Your task to perform on an android device: turn off location Image 0: 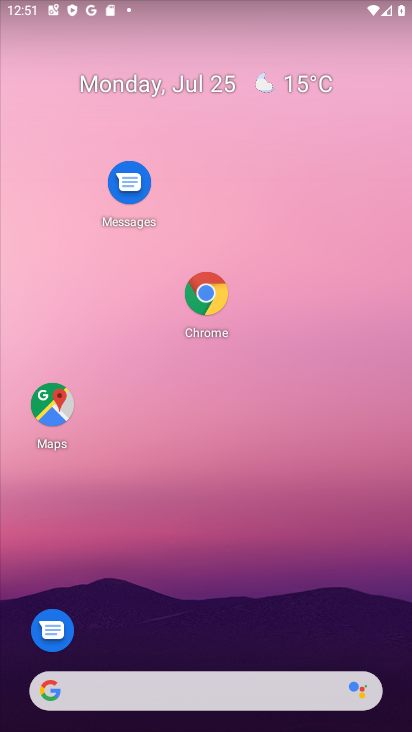
Step 0: press home button
Your task to perform on an android device: turn off location Image 1: 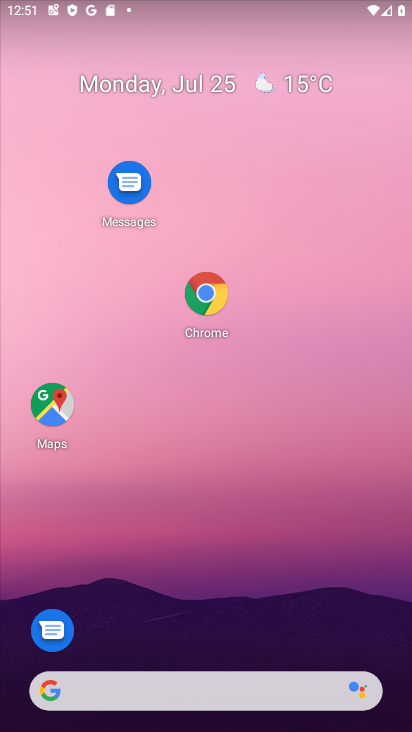
Step 1: drag from (238, 556) to (317, 178)
Your task to perform on an android device: turn off location Image 2: 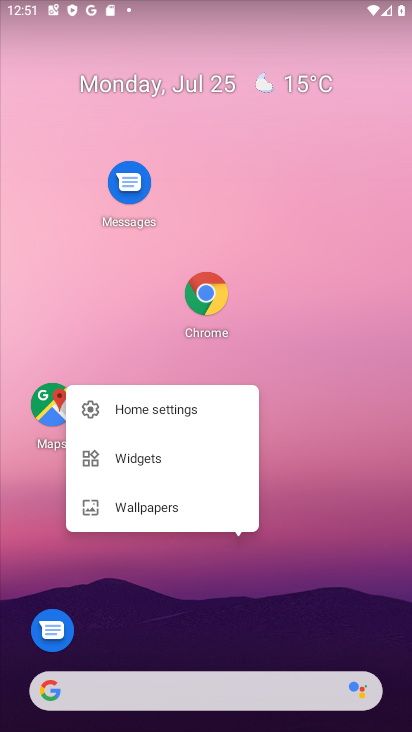
Step 2: click (307, 553)
Your task to perform on an android device: turn off location Image 3: 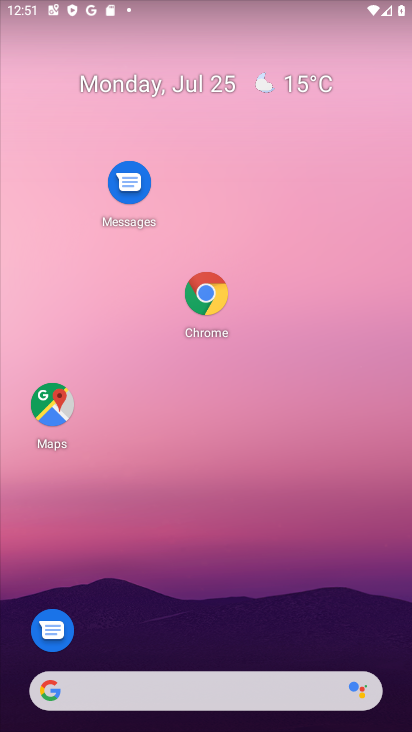
Step 3: drag from (302, 601) to (328, 60)
Your task to perform on an android device: turn off location Image 4: 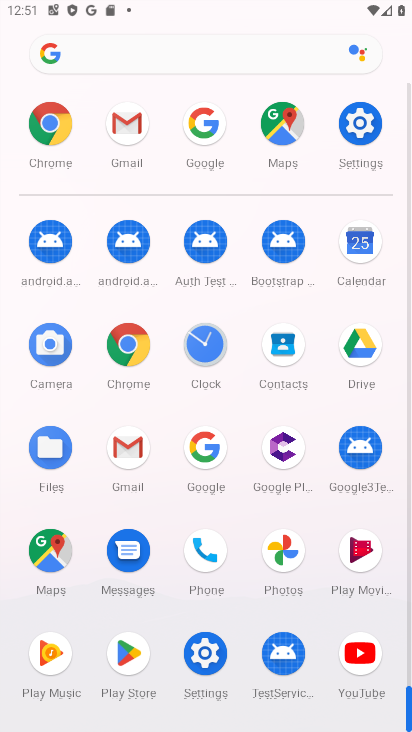
Step 4: click (277, 138)
Your task to perform on an android device: turn off location Image 5: 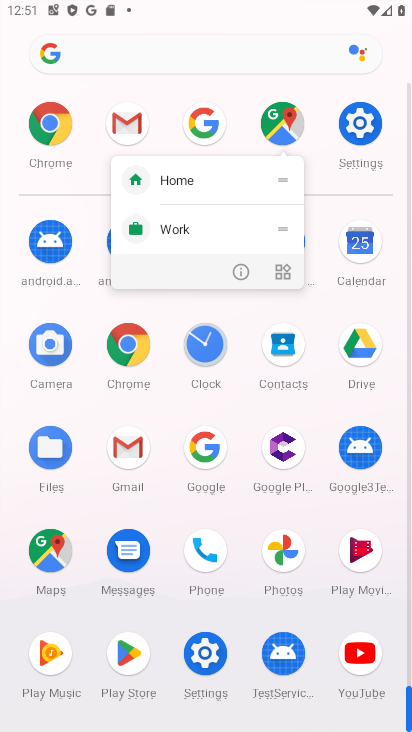
Step 5: click (285, 126)
Your task to perform on an android device: turn off location Image 6: 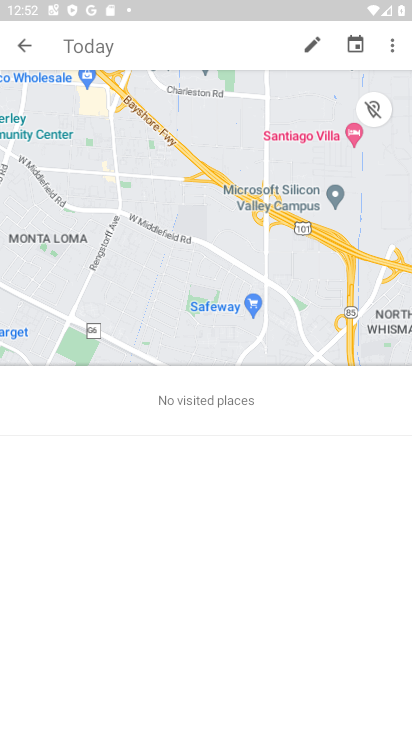
Step 6: click (22, 44)
Your task to perform on an android device: turn off location Image 7: 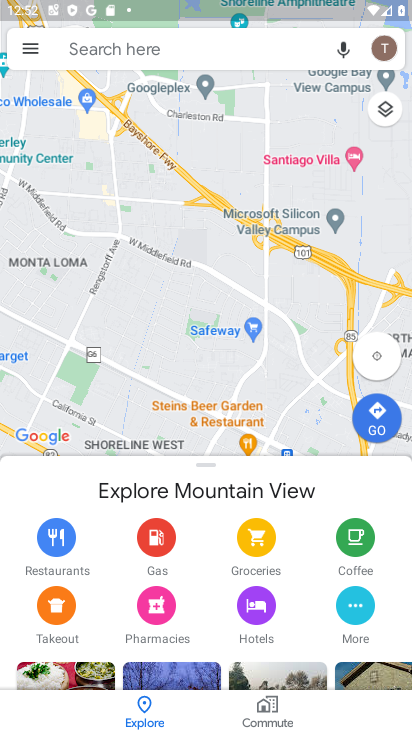
Step 7: click (22, 44)
Your task to perform on an android device: turn off location Image 8: 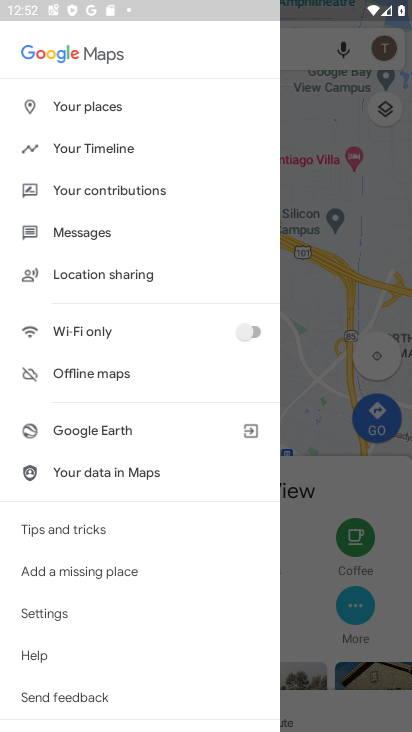
Step 8: drag from (158, 175) to (144, 504)
Your task to perform on an android device: turn off location Image 9: 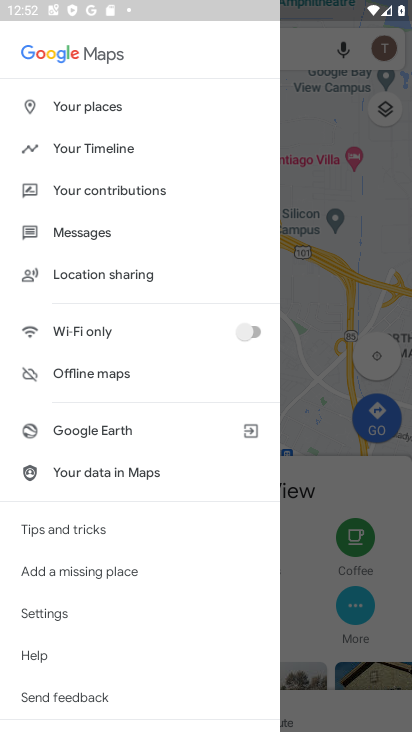
Step 9: click (85, 149)
Your task to perform on an android device: turn off location Image 10: 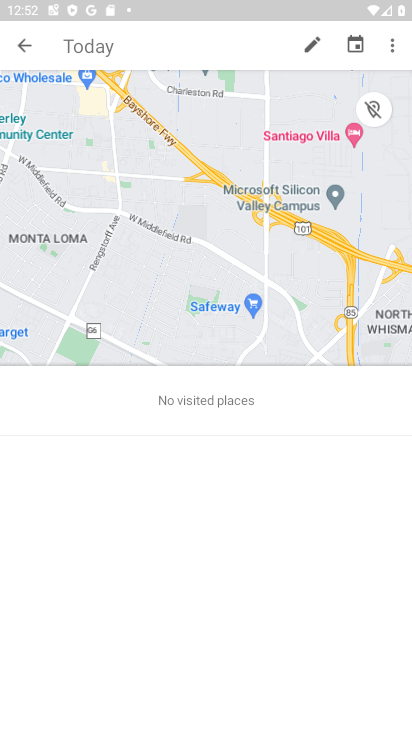
Step 10: click (396, 43)
Your task to perform on an android device: turn off location Image 11: 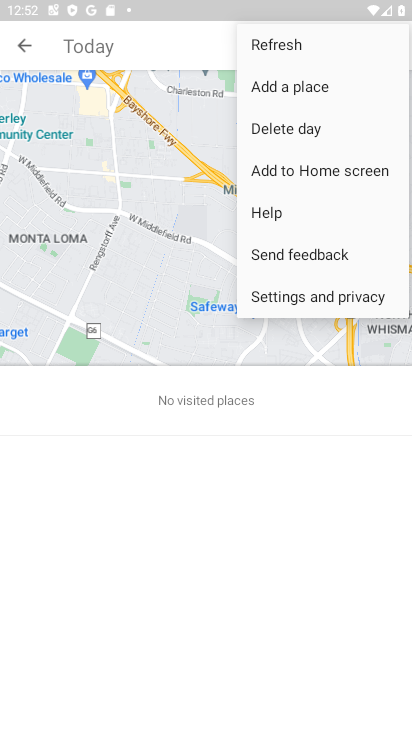
Step 11: click (293, 288)
Your task to perform on an android device: turn off location Image 12: 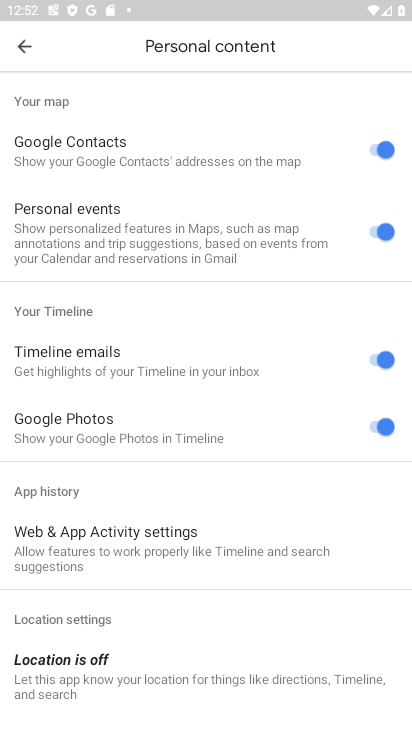
Step 12: drag from (184, 562) to (227, 284)
Your task to perform on an android device: turn off location Image 13: 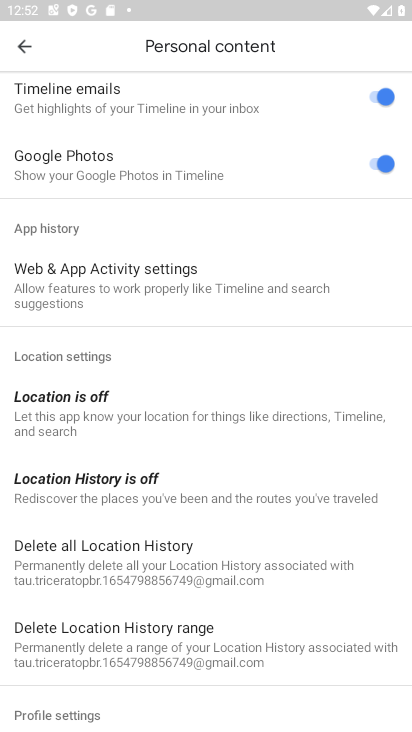
Step 13: click (47, 407)
Your task to perform on an android device: turn off location Image 14: 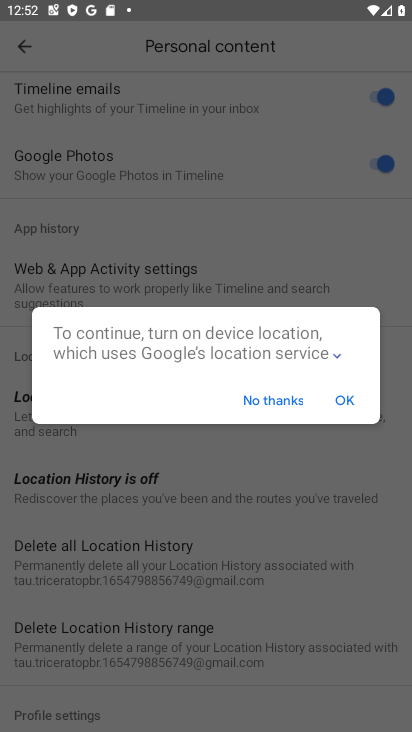
Step 14: click (287, 409)
Your task to perform on an android device: turn off location Image 15: 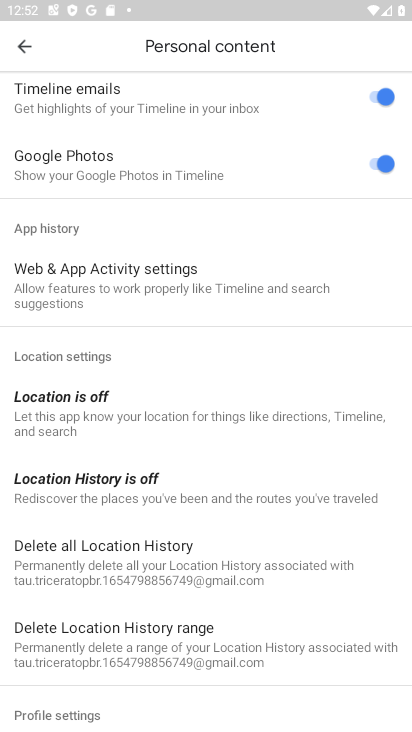
Step 15: task complete